Your task to perform on an android device: turn off javascript in the chrome app Image 0: 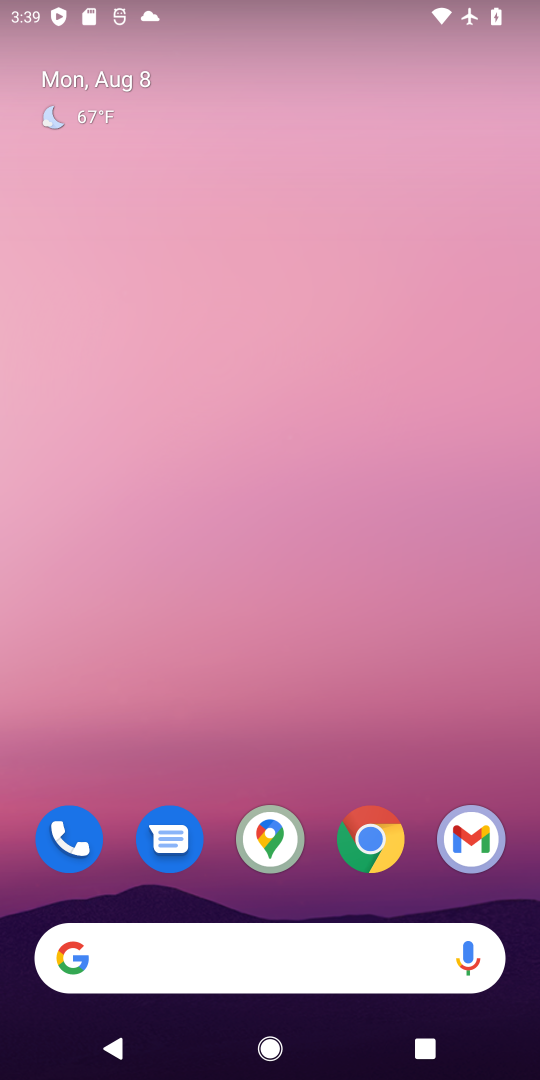
Step 0: press home button
Your task to perform on an android device: turn off javascript in the chrome app Image 1: 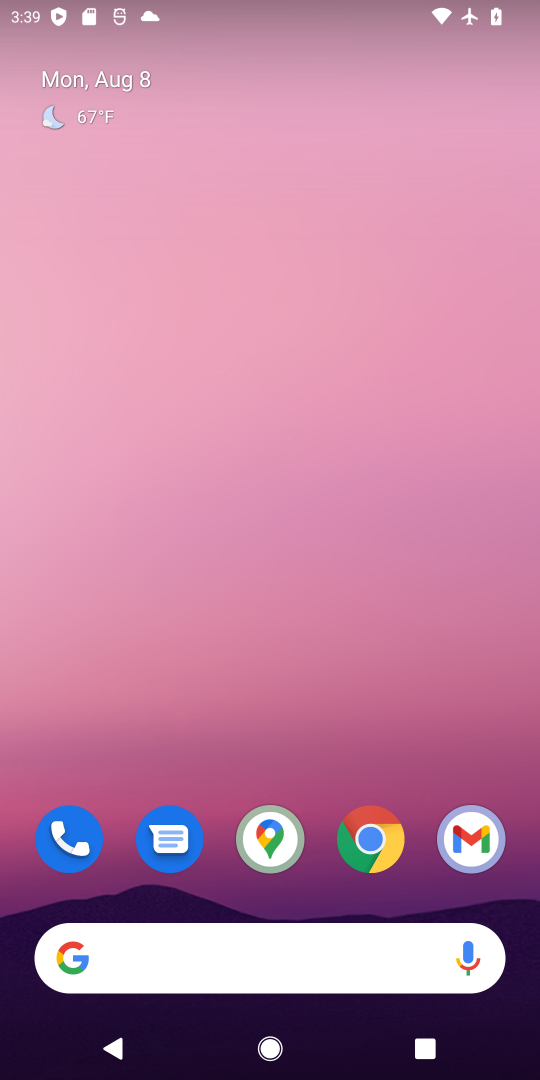
Step 1: drag from (480, 737) to (485, 294)
Your task to perform on an android device: turn off javascript in the chrome app Image 2: 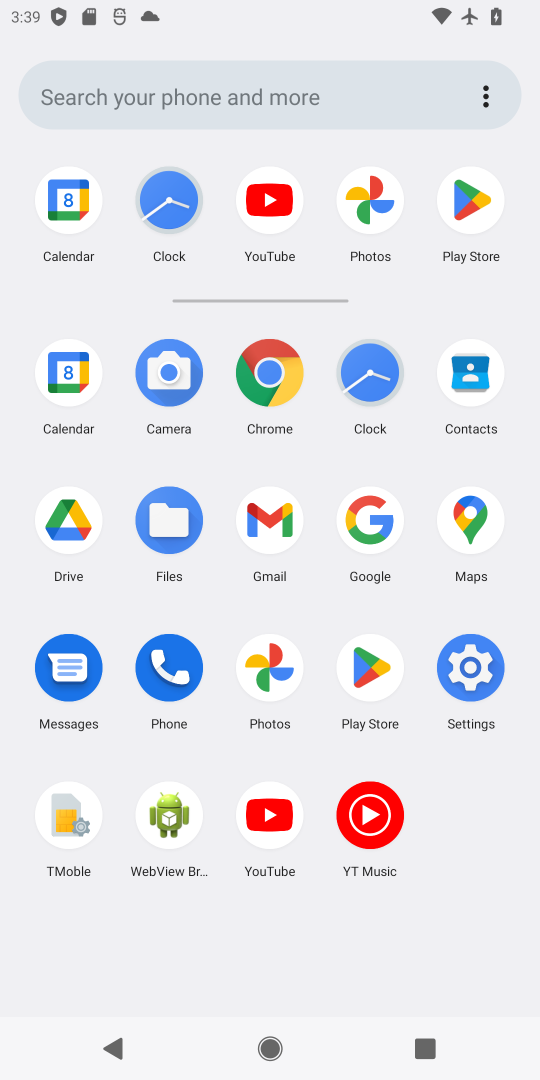
Step 2: click (267, 384)
Your task to perform on an android device: turn off javascript in the chrome app Image 3: 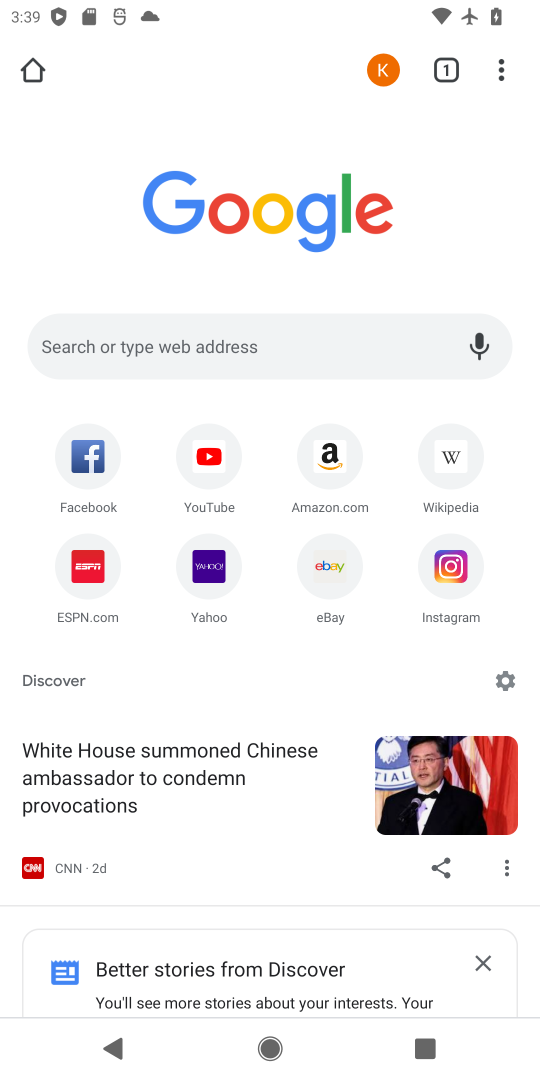
Step 3: click (502, 70)
Your task to perform on an android device: turn off javascript in the chrome app Image 4: 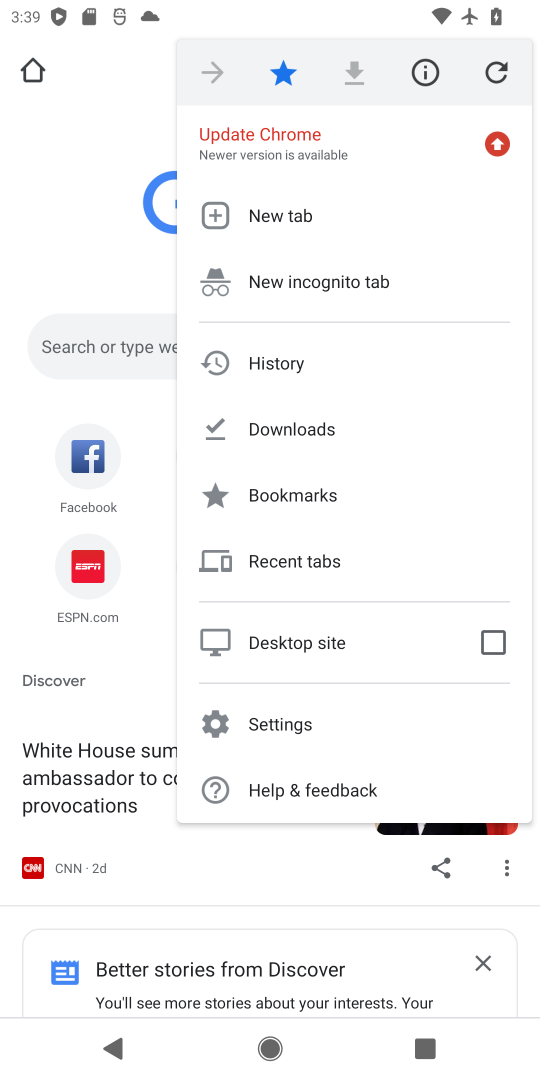
Step 4: click (356, 735)
Your task to perform on an android device: turn off javascript in the chrome app Image 5: 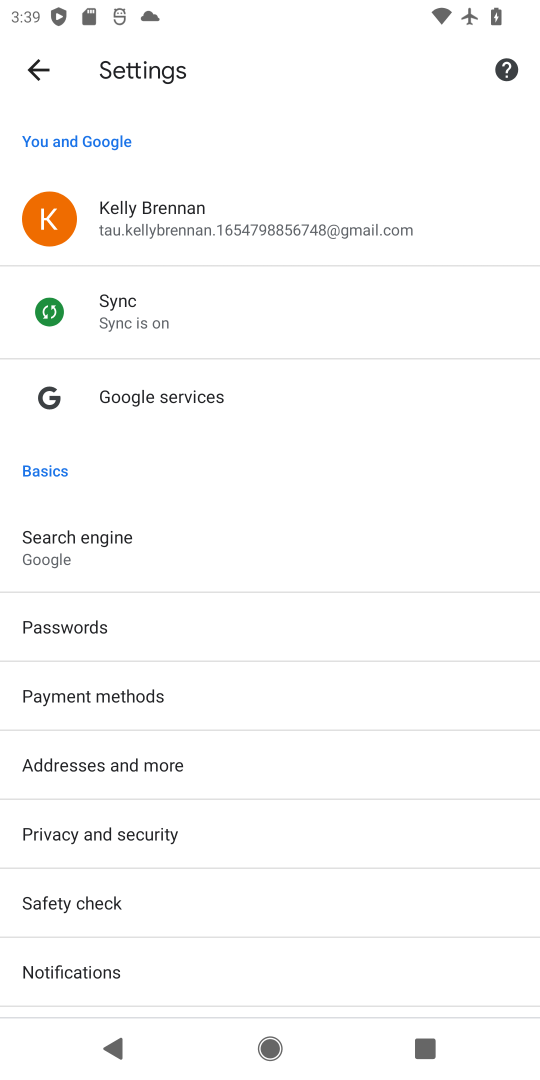
Step 5: drag from (440, 833) to (442, 646)
Your task to perform on an android device: turn off javascript in the chrome app Image 6: 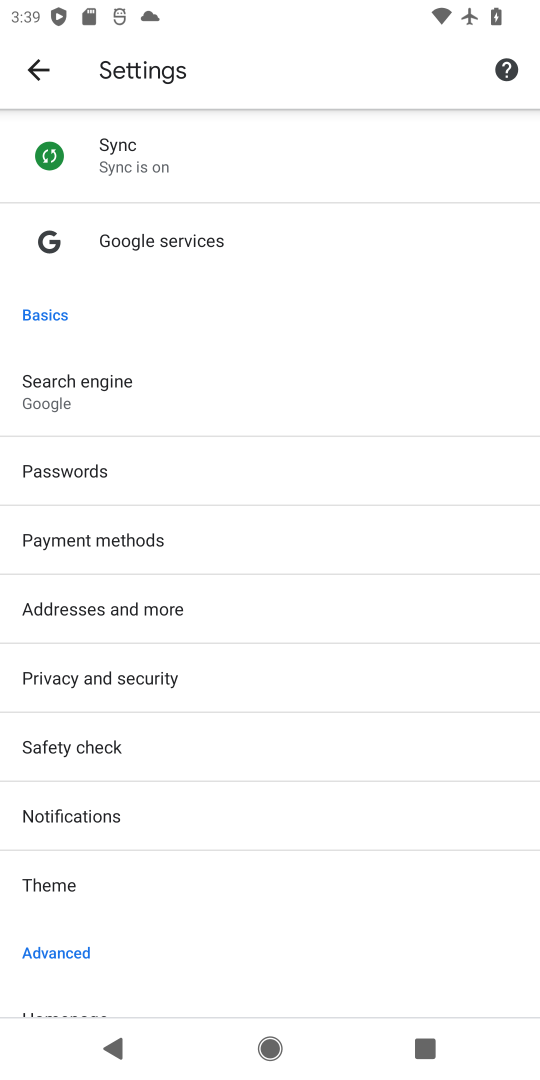
Step 6: drag from (403, 818) to (417, 626)
Your task to perform on an android device: turn off javascript in the chrome app Image 7: 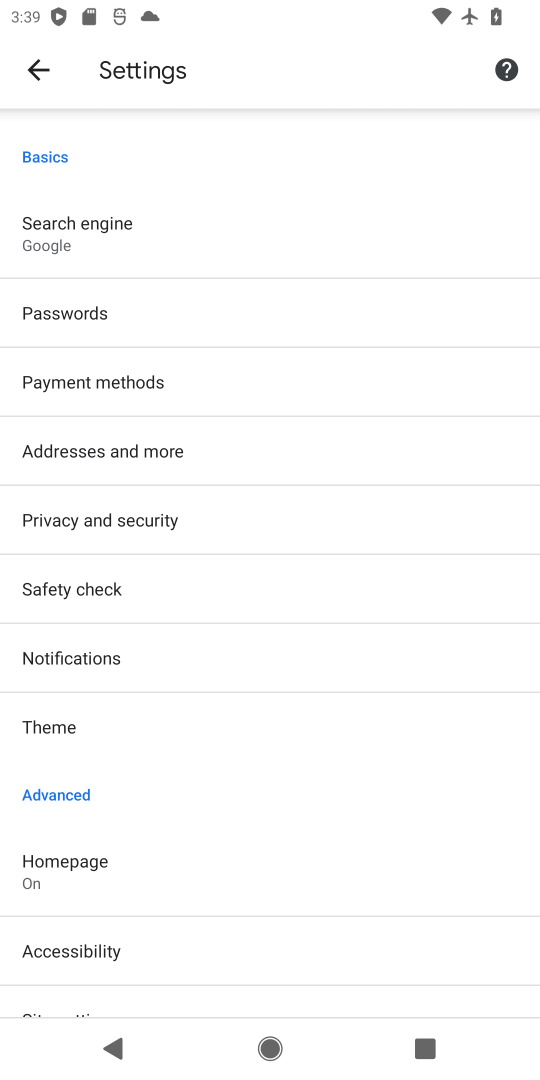
Step 7: drag from (412, 834) to (416, 649)
Your task to perform on an android device: turn off javascript in the chrome app Image 8: 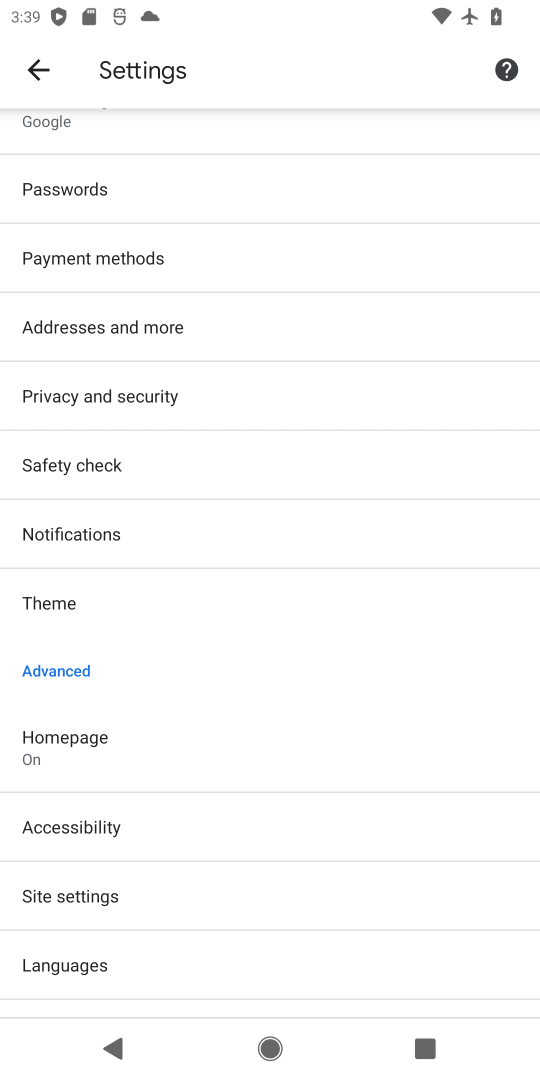
Step 8: drag from (396, 874) to (409, 584)
Your task to perform on an android device: turn off javascript in the chrome app Image 9: 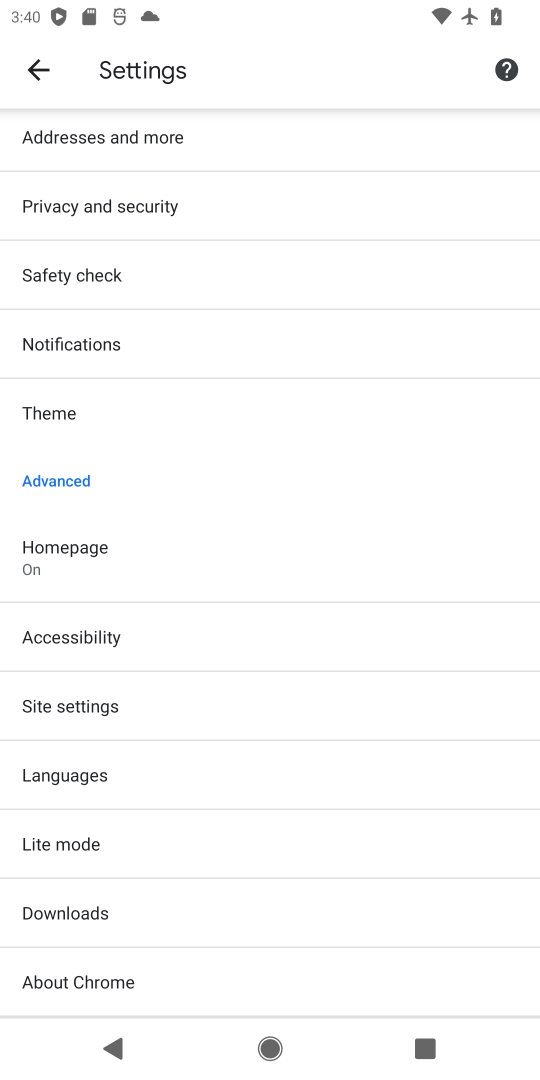
Step 9: click (403, 716)
Your task to perform on an android device: turn off javascript in the chrome app Image 10: 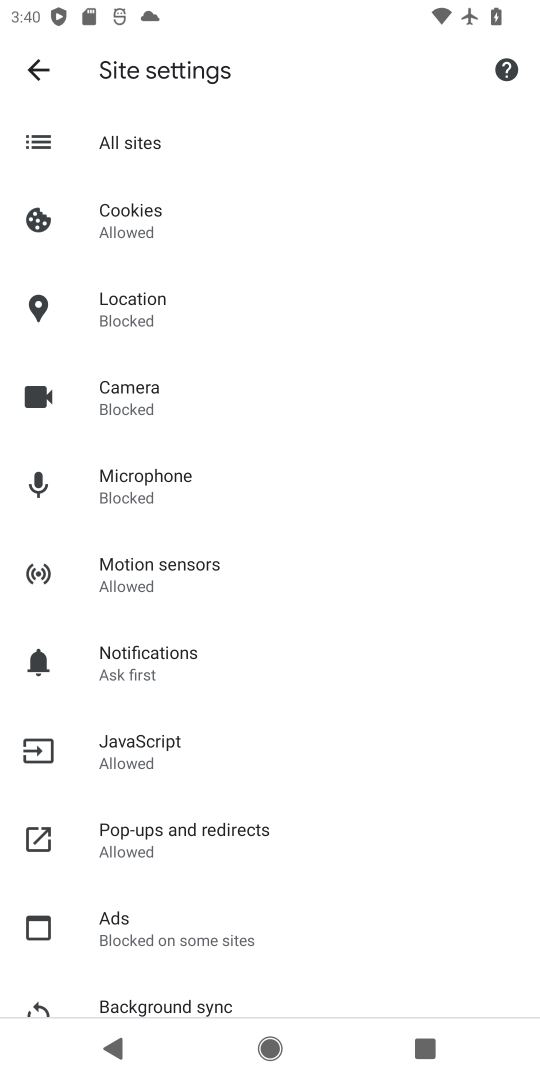
Step 10: drag from (433, 799) to (462, 659)
Your task to perform on an android device: turn off javascript in the chrome app Image 11: 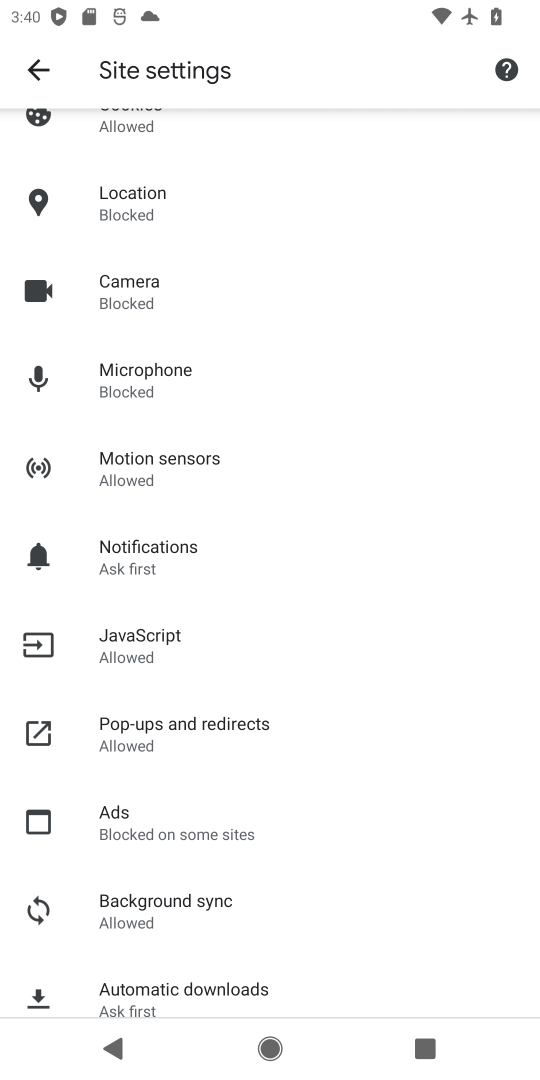
Step 11: drag from (427, 836) to (442, 621)
Your task to perform on an android device: turn off javascript in the chrome app Image 12: 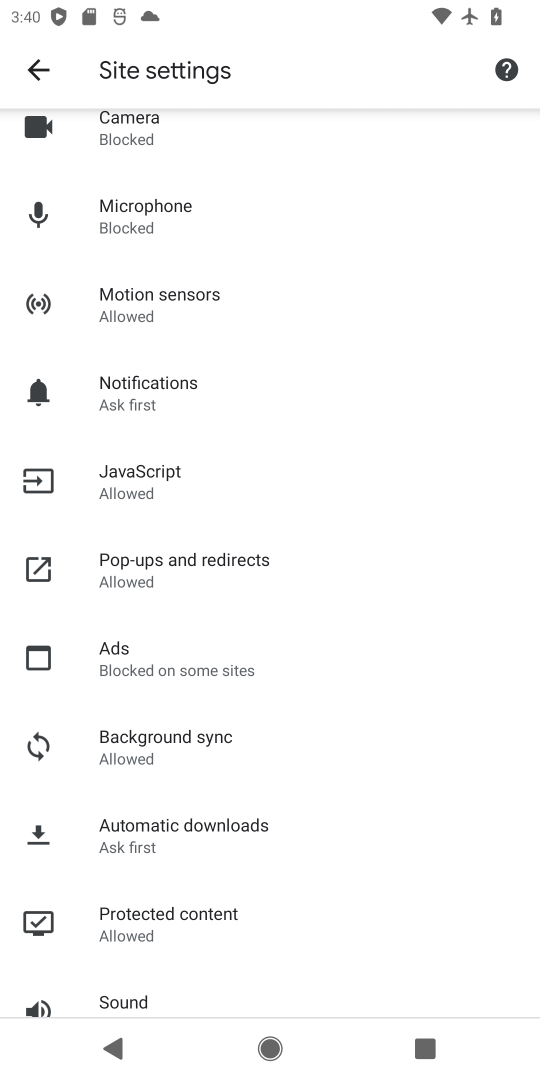
Step 12: drag from (413, 823) to (420, 671)
Your task to perform on an android device: turn off javascript in the chrome app Image 13: 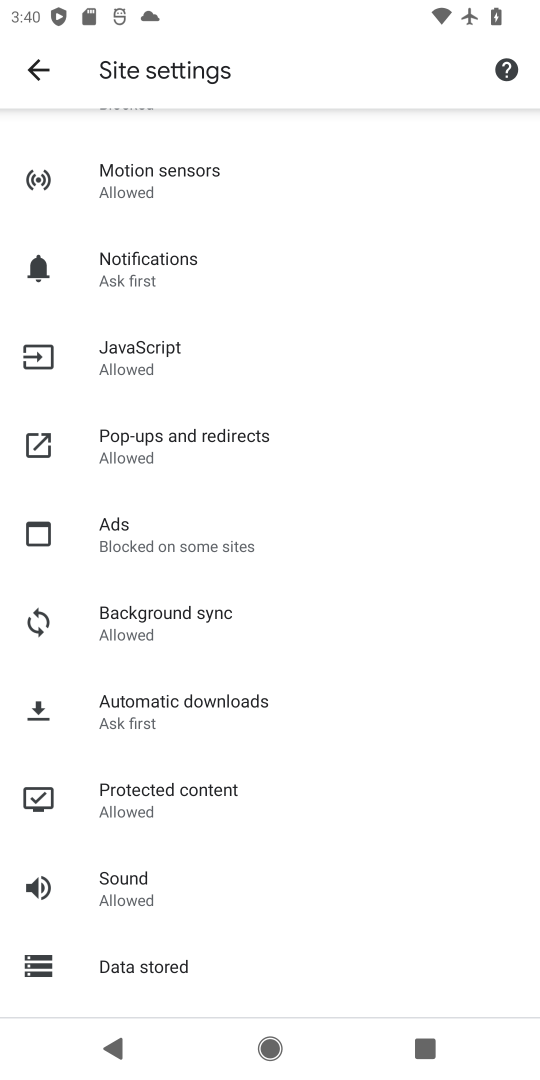
Step 13: click (238, 366)
Your task to perform on an android device: turn off javascript in the chrome app Image 14: 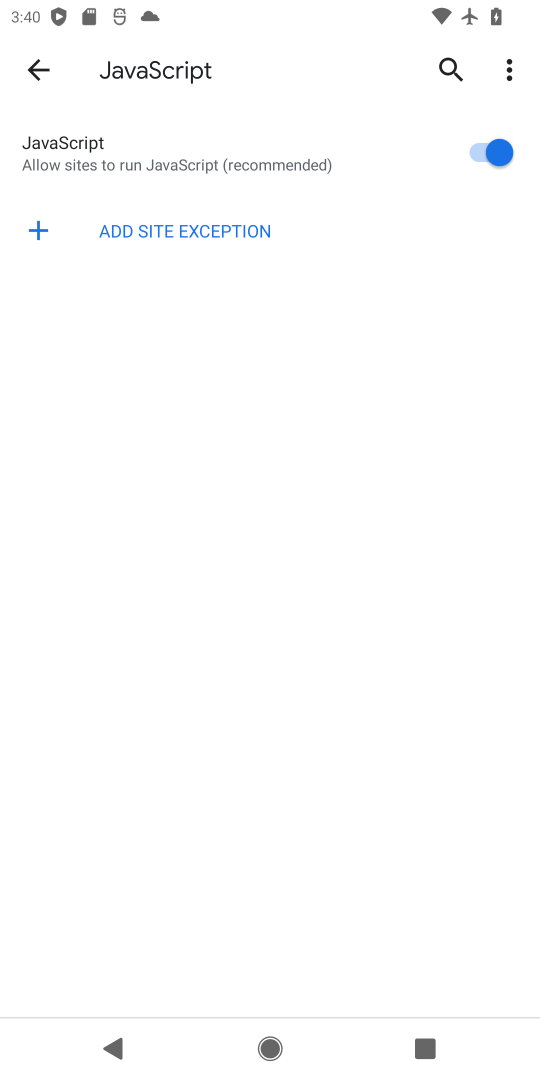
Step 14: click (489, 152)
Your task to perform on an android device: turn off javascript in the chrome app Image 15: 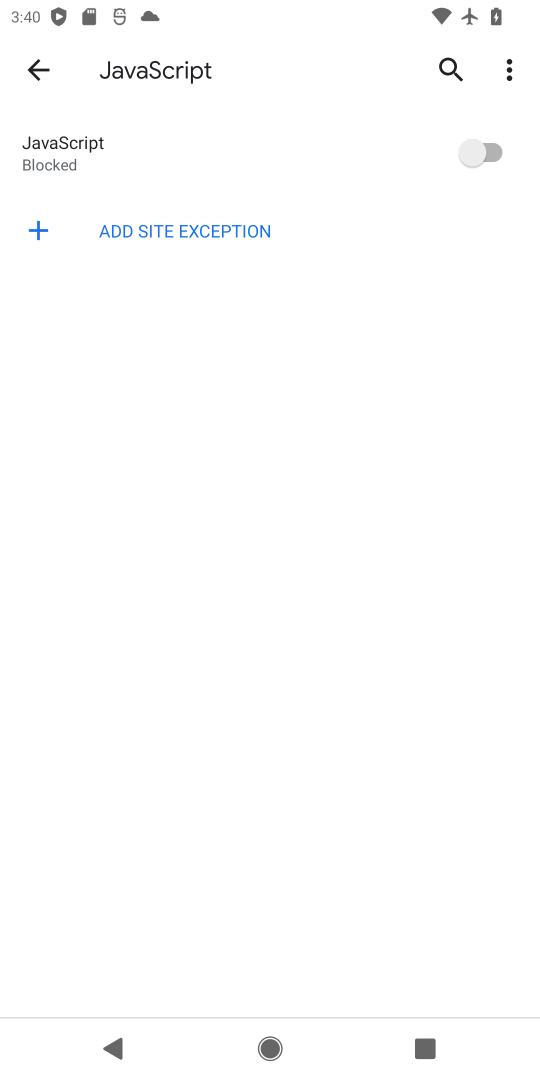
Step 15: task complete